Your task to perform on an android device: Go to location settings Image 0: 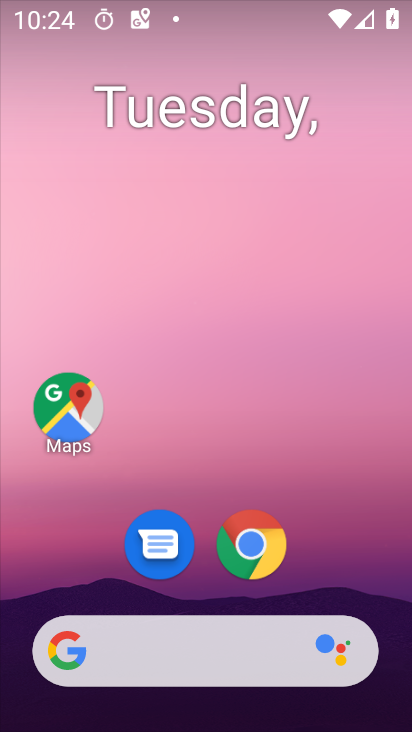
Step 0: drag from (373, 581) to (333, 214)
Your task to perform on an android device: Go to location settings Image 1: 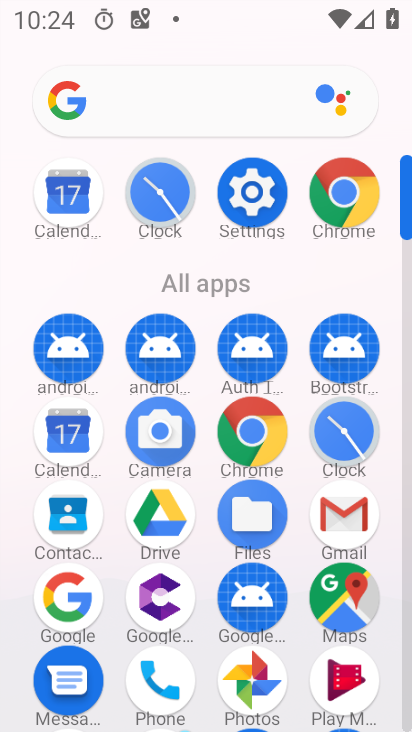
Step 1: click (254, 202)
Your task to perform on an android device: Go to location settings Image 2: 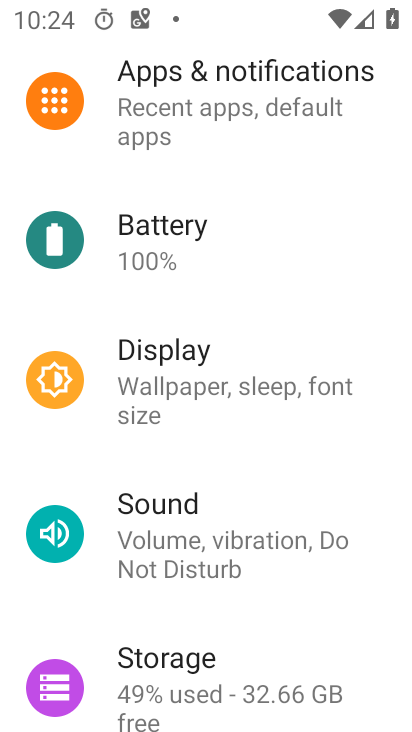
Step 2: drag from (313, 608) to (306, 240)
Your task to perform on an android device: Go to location settings Image 3: 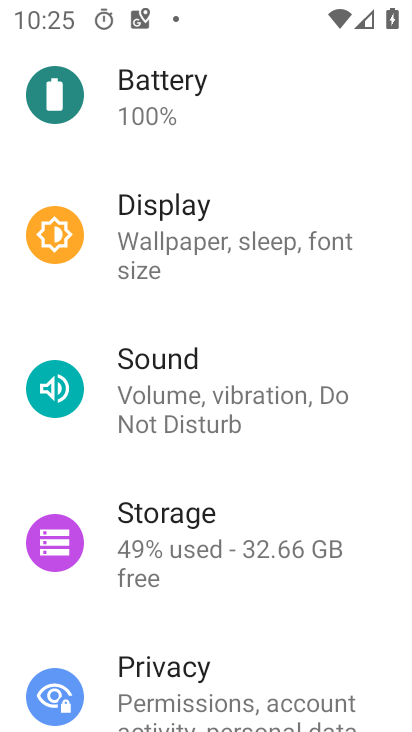
Step 3: drag from (365, 648) to (335, 351)
Your task to perform on an android device: Go to location settings Image 4: 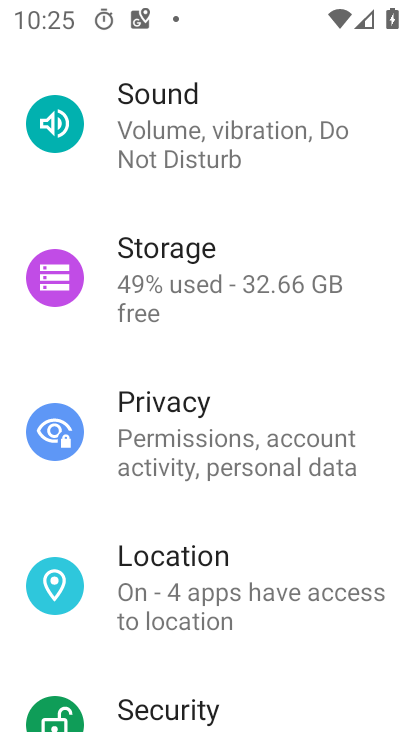
Step 4: click (321, 583)
Your task to perform on an android device: Go to location settings Image 5: 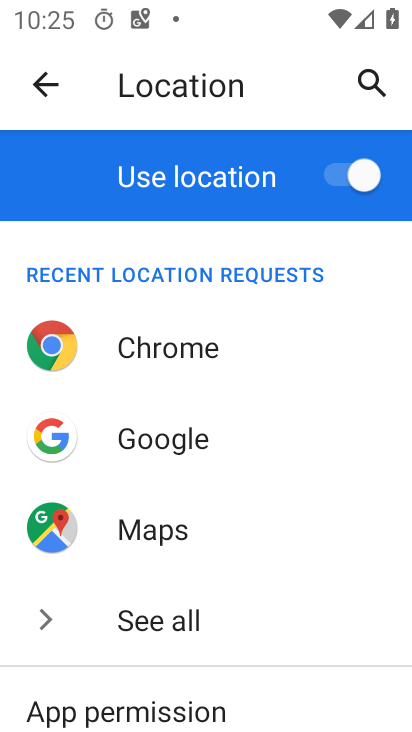
Step 5: drag from (330, 674) to (283, 254)
Your task to perform on an android device: Go to location settings Image 6: 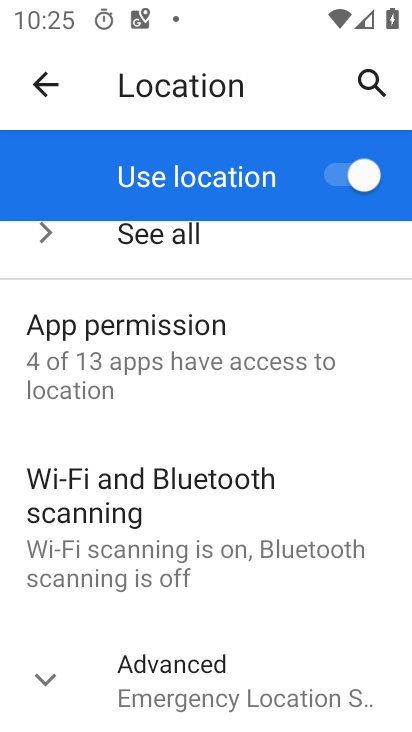
Step 6: click (305, 673)
Your task to perform on an android device: Go to location settings Image 7: 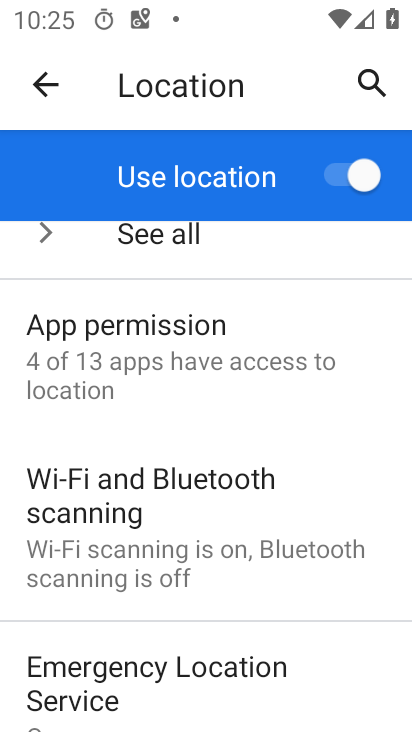
Step 7: task complete